Your task to perform on an android device: What is the news today? Image 0: 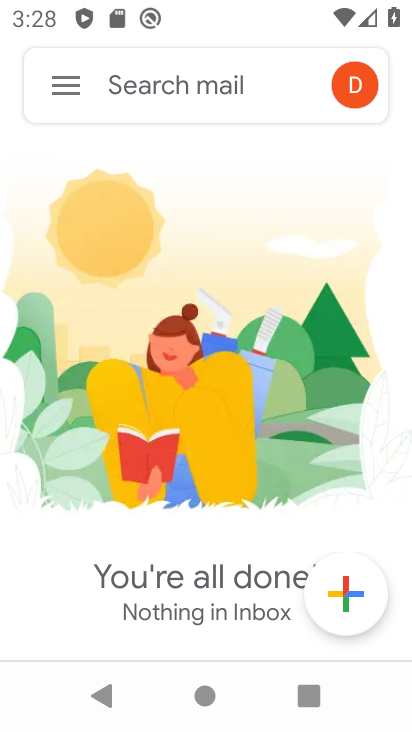
Step 0: press home button
Your task to perform on an android device: What is the news today? Image 1: 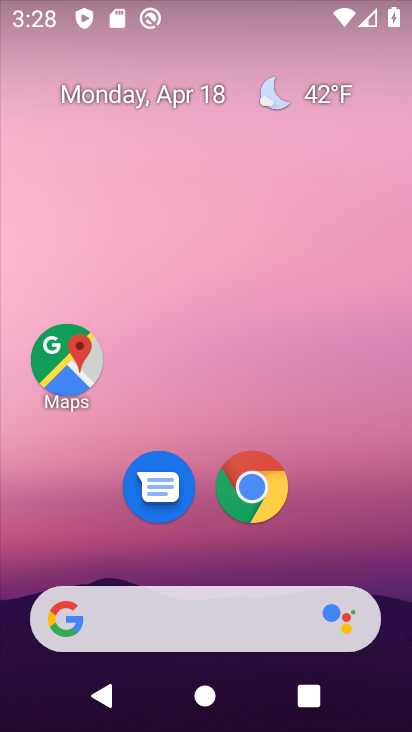
Step 1: click (223, 607)
Your task to perform on an android device: What is the news today? Image 2: 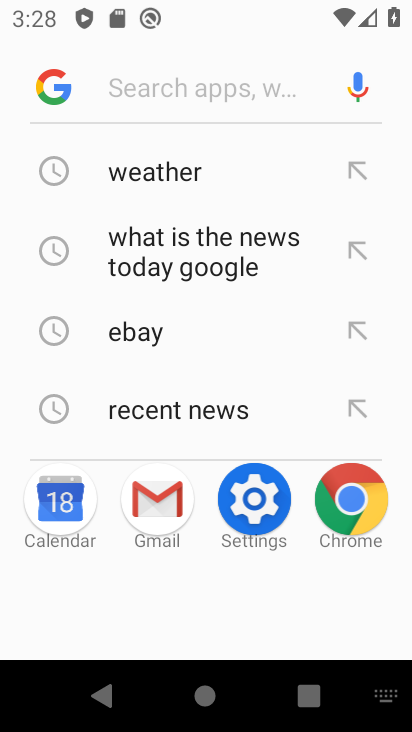
Step 2: click (208, 251)
Your task to perform on an android device: What is the news today? Image 3: 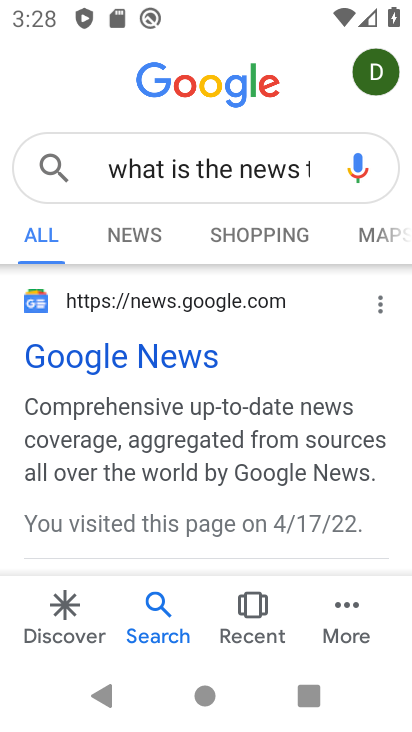
Step 3: click (121, 234)
Your task to perform on an android device: What is the news today? Image 4: 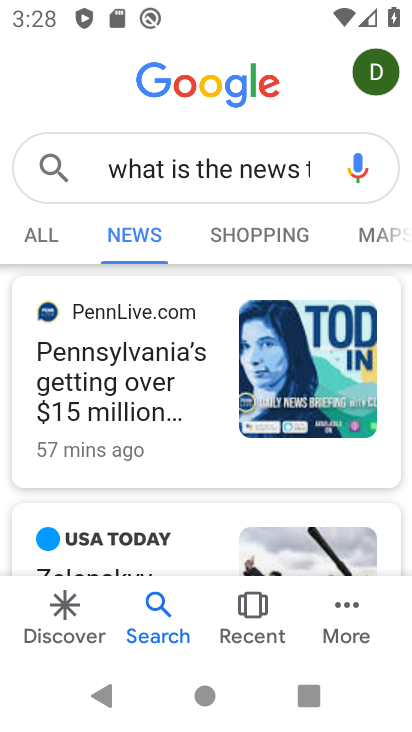
Step 4: task complete